Your task to perform on an android device: turn off javascript in the chrome app Image 0: 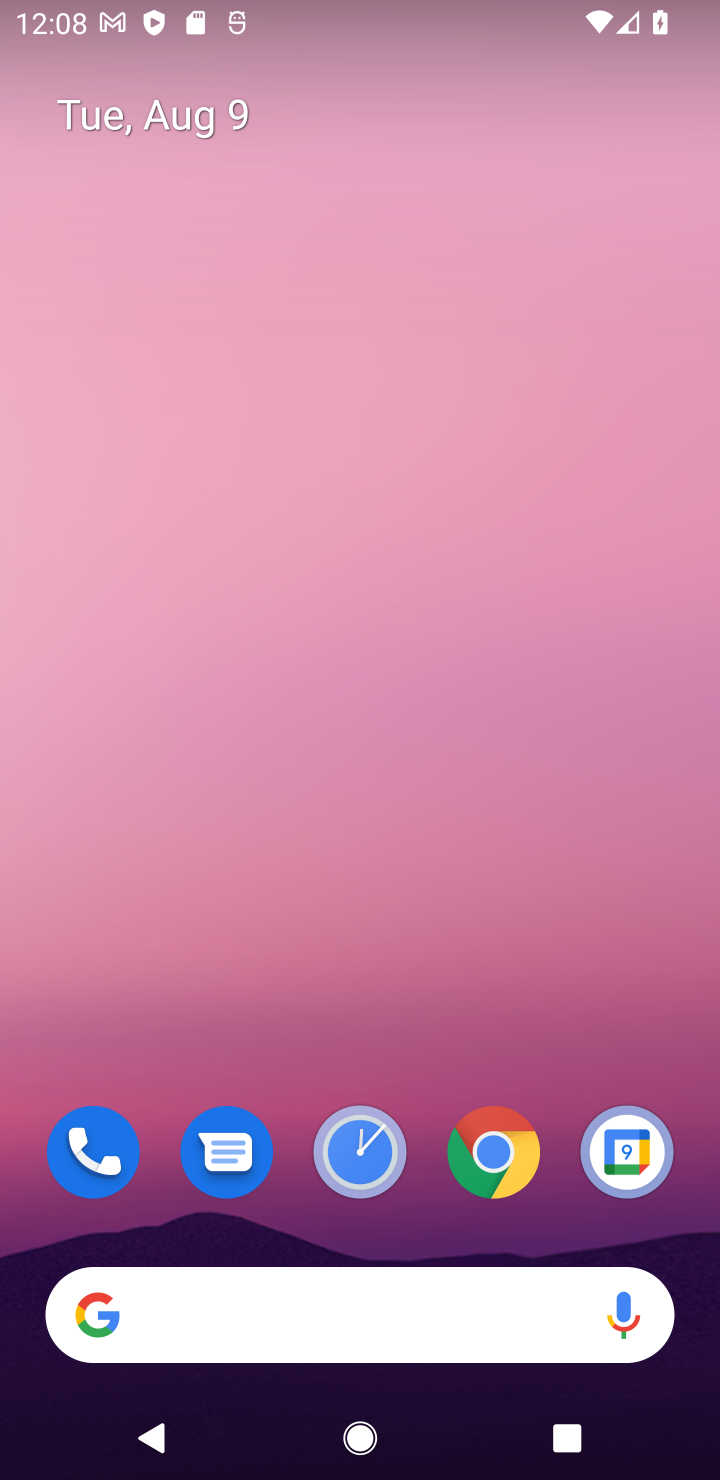
Step 0: click (494, 1142)
Your task to perform on an android device: turn off javascript in the chrome app Image 1: 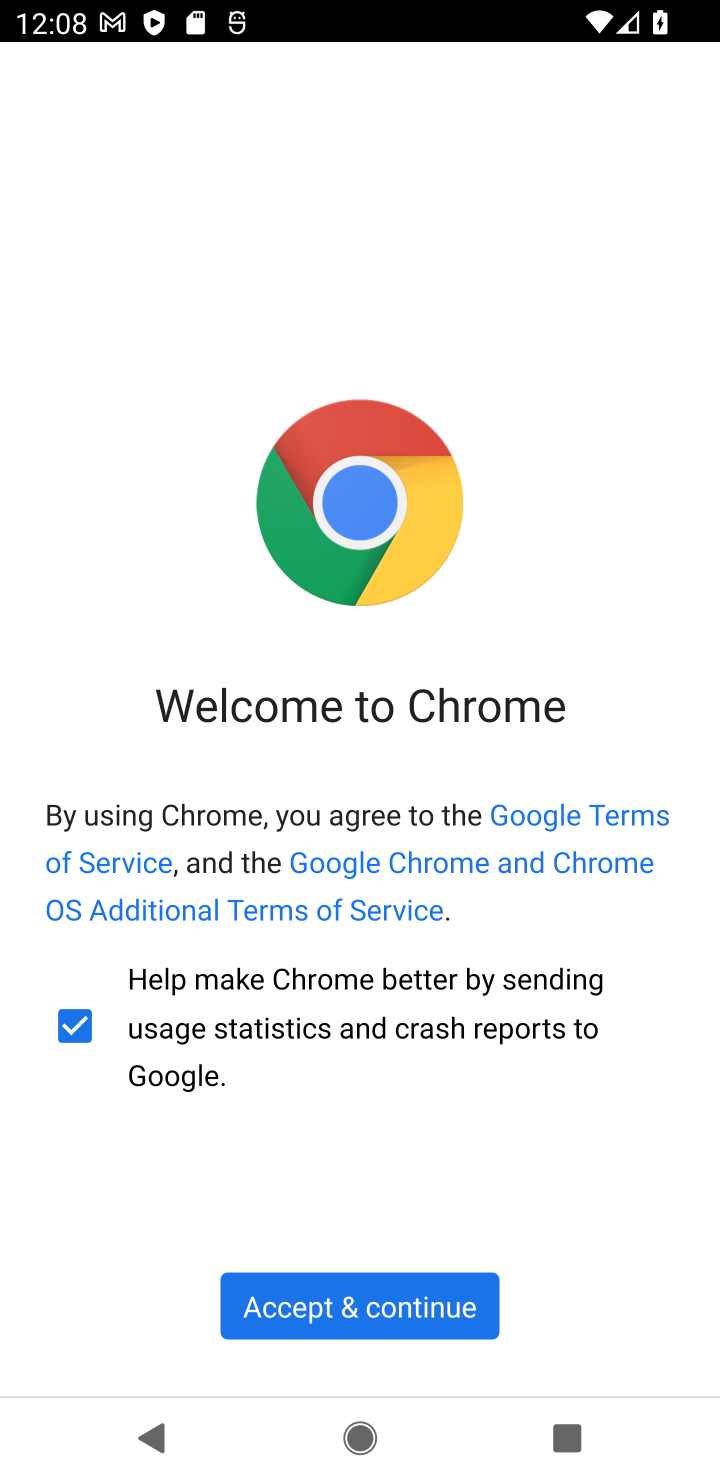
Step 1: click (414, 1295)
Your task to perform on an android device: turn off javascript in the chrome app Image 2: 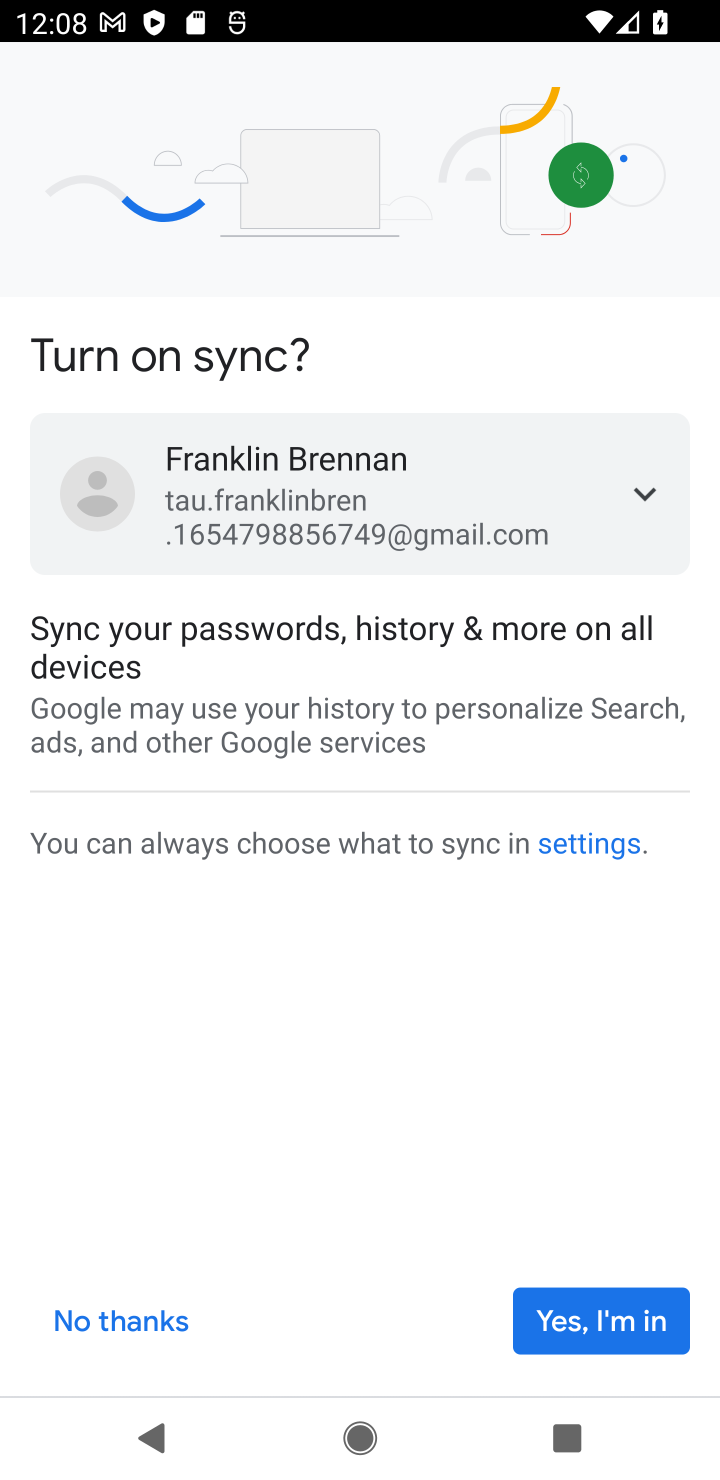
Step 2: click (584, 1328)
Your task to perform on an android device: turn off javascript in the chrome app Image 3: 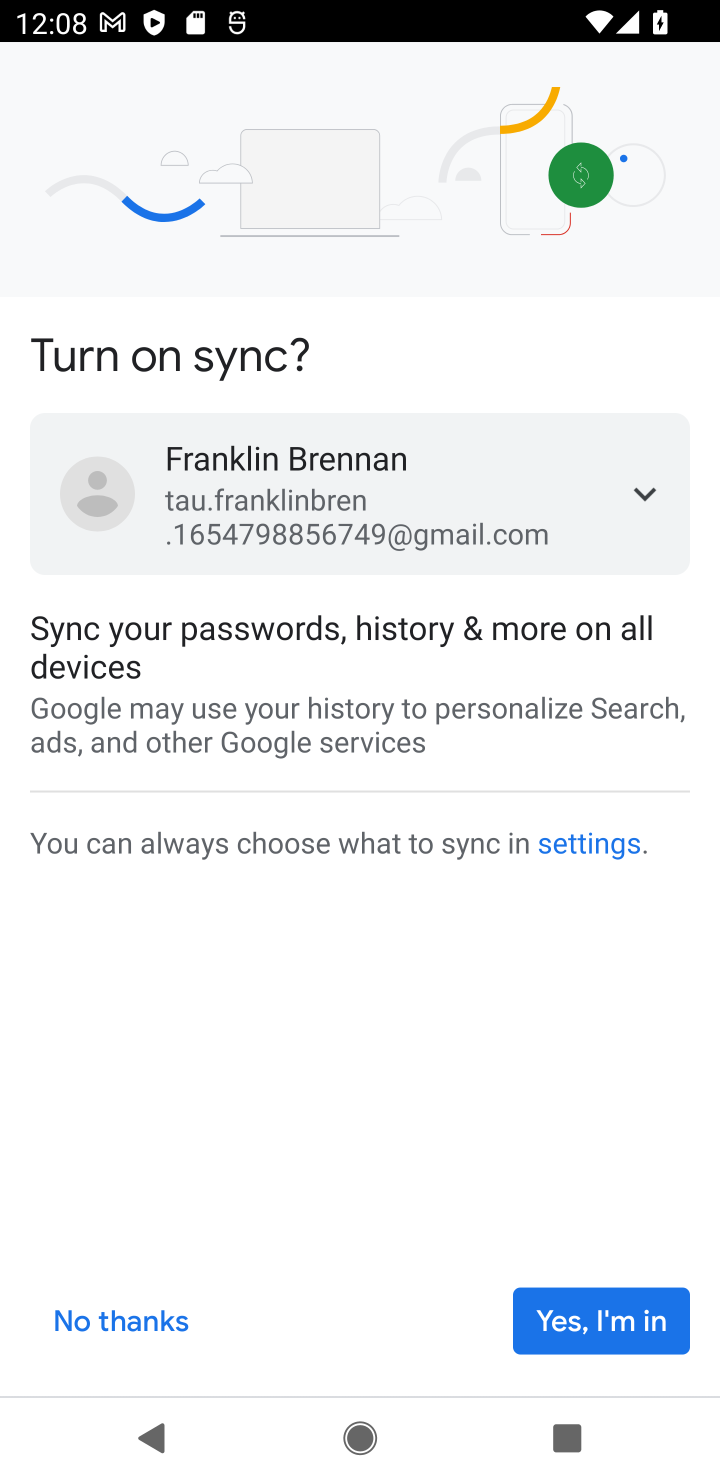
Step 3: click (597, 1305)
Your task to perform on an android device: turn off javascript in the chrome app Image 4: 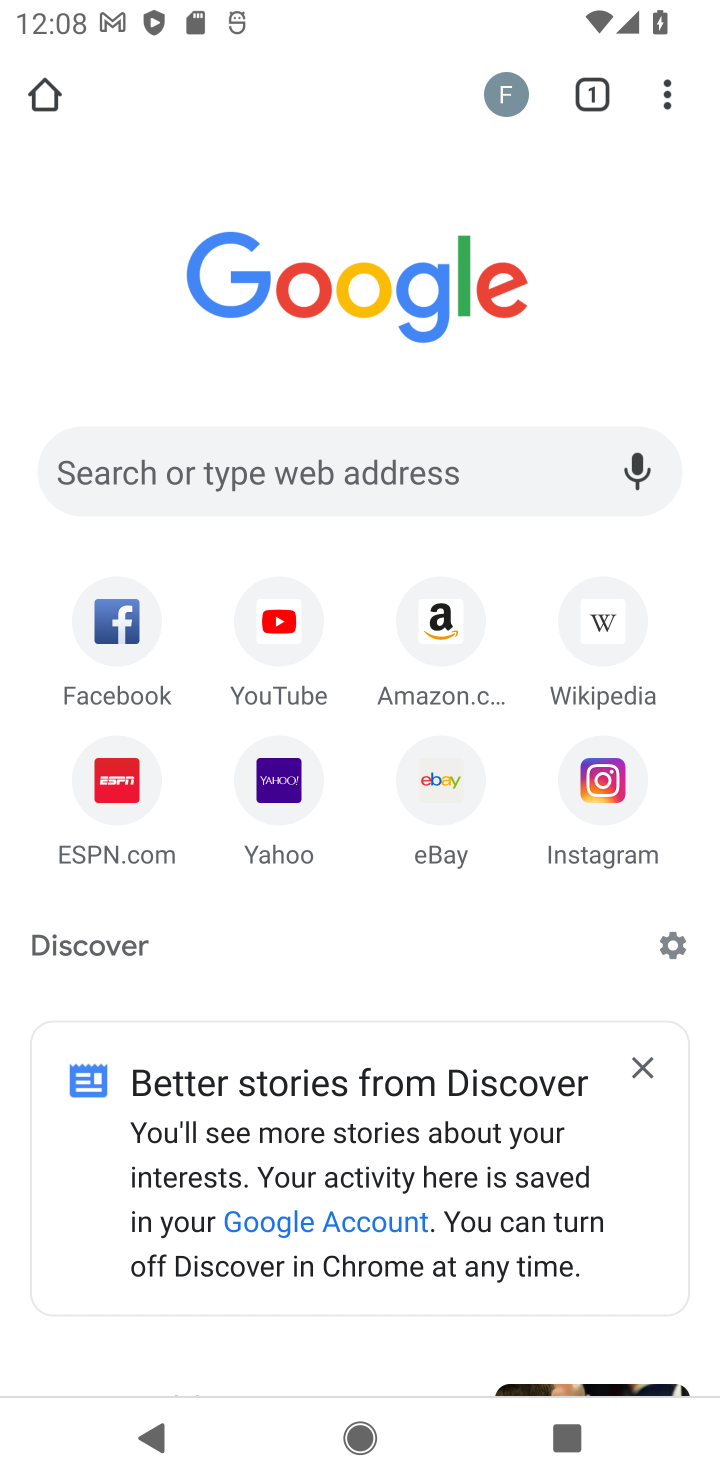
Step 4: click (658, 93)
Your task to perform on an android device: turn off javascript in the chrome app Image 5: 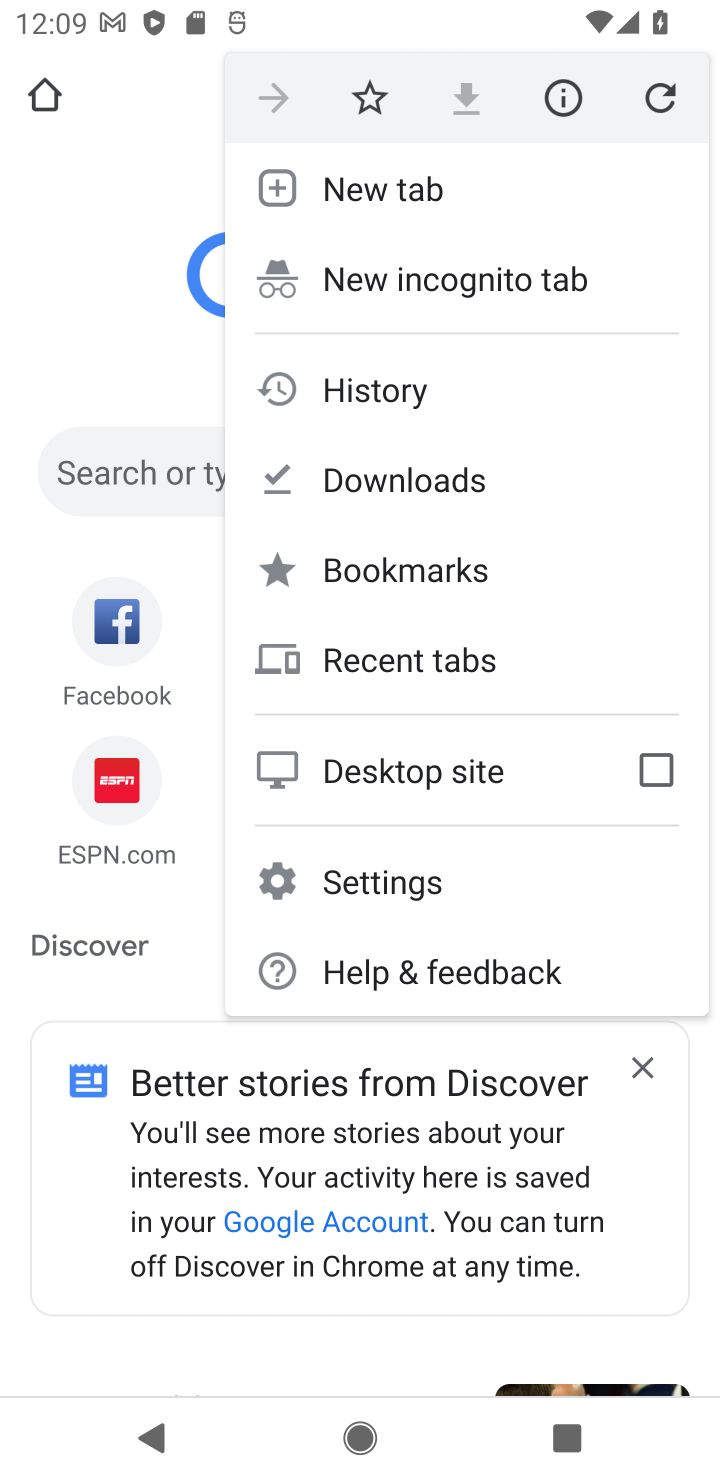
Step 5: click (375, 879)
Your task to perform on an android device: turn off javascript in the chrome app Image 6: 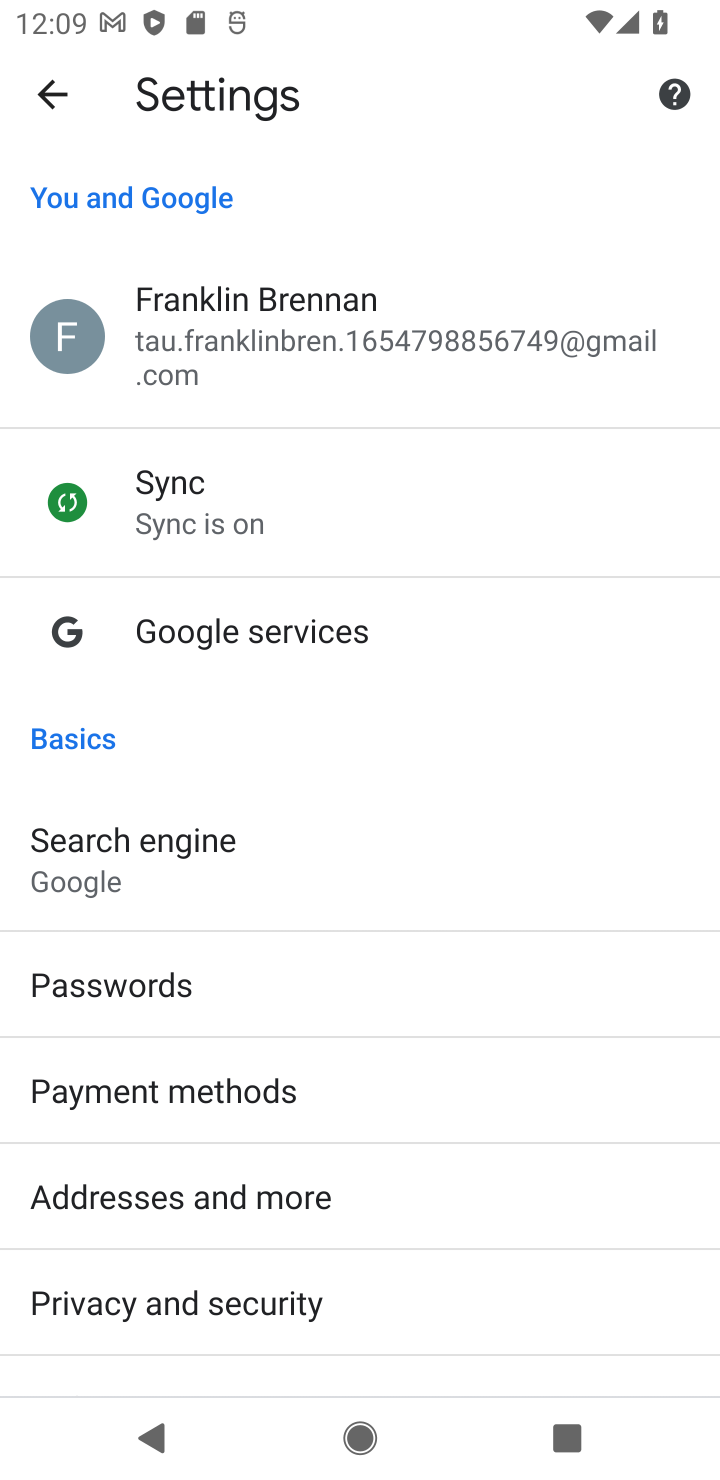
Step 6: drag from (470, 1166) to (386, 870)
Your task to perform on an android device: turn off javascript in the chrome app Image 7: 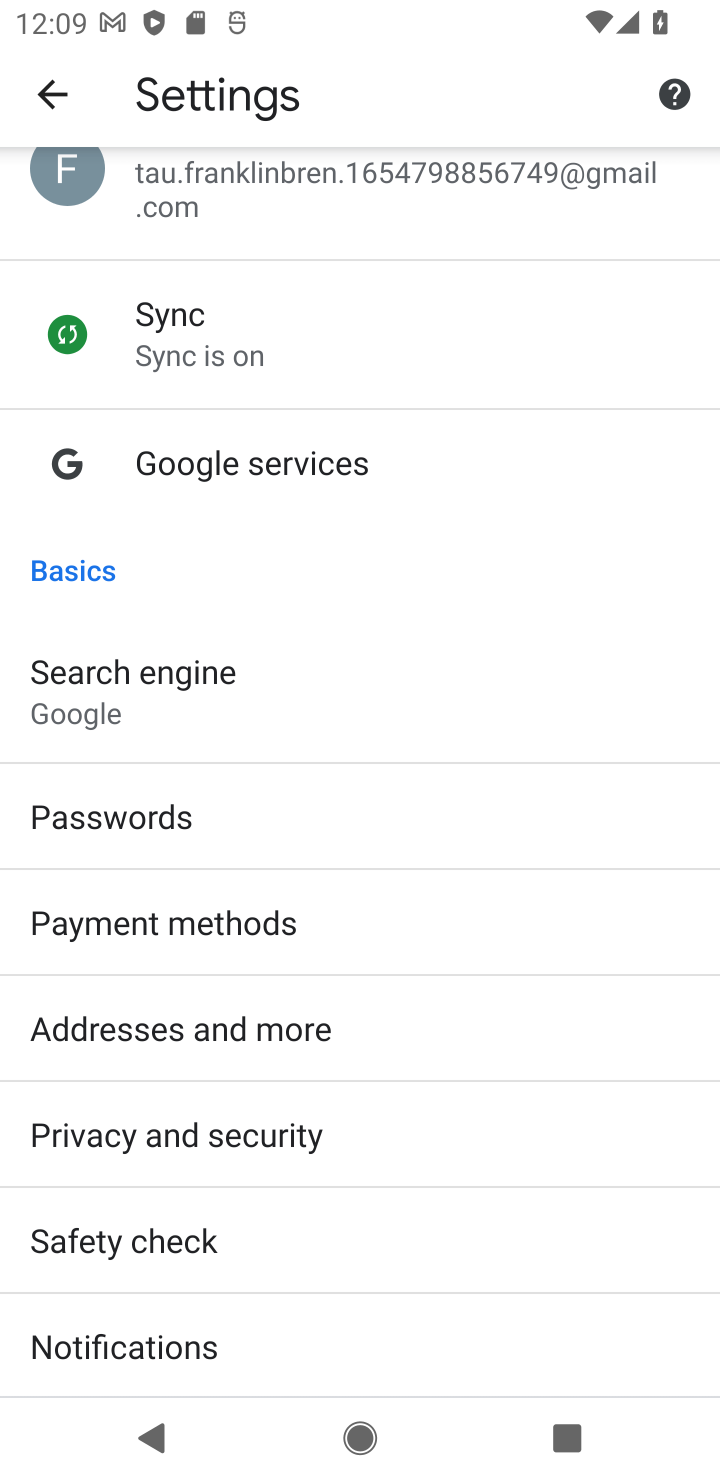
Step 7: drag from (478, 1282) to (345, 842)
Your task to perform on an android device: turn off javascript in the chrome app Image 8: 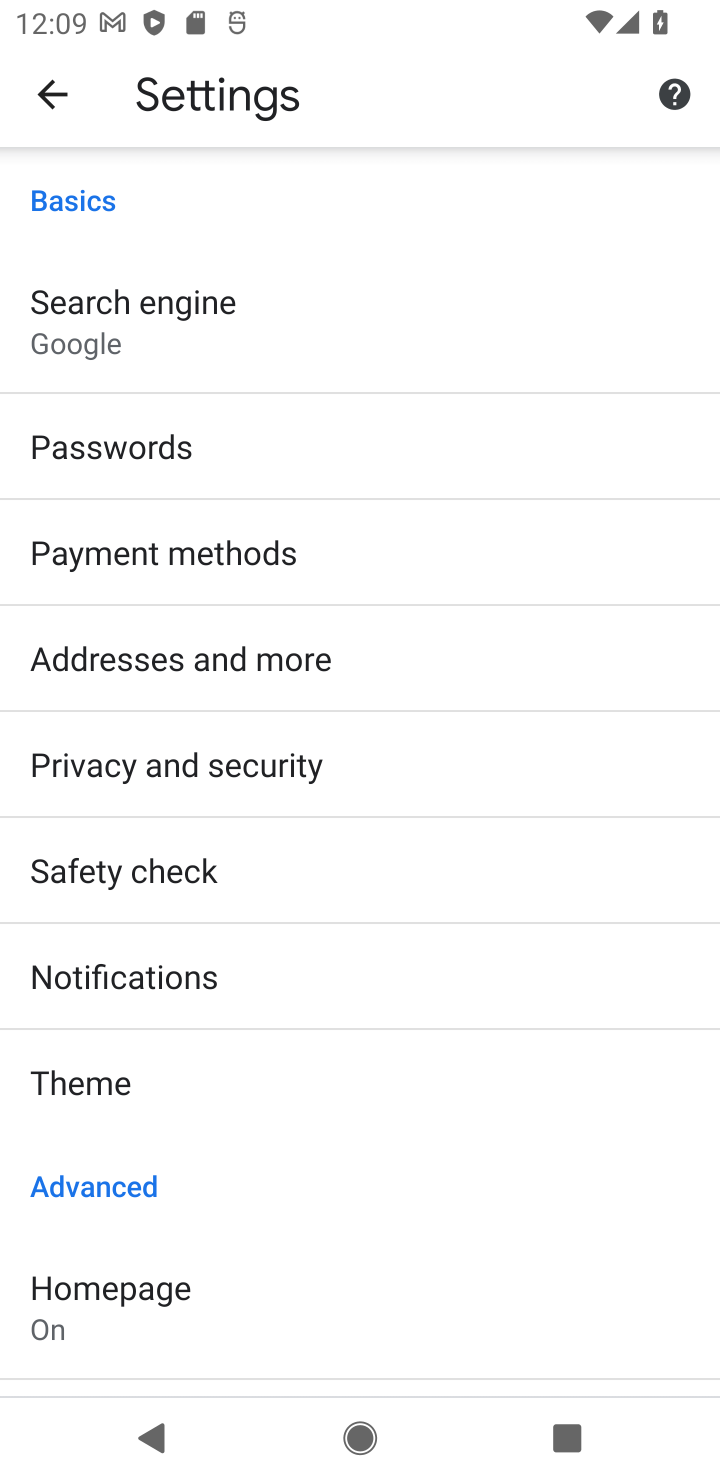
Step 8: drag from (436, 1286) to (289, 738)
Your task to perform on an android device: turn off javascript in the chrome app Image 9: 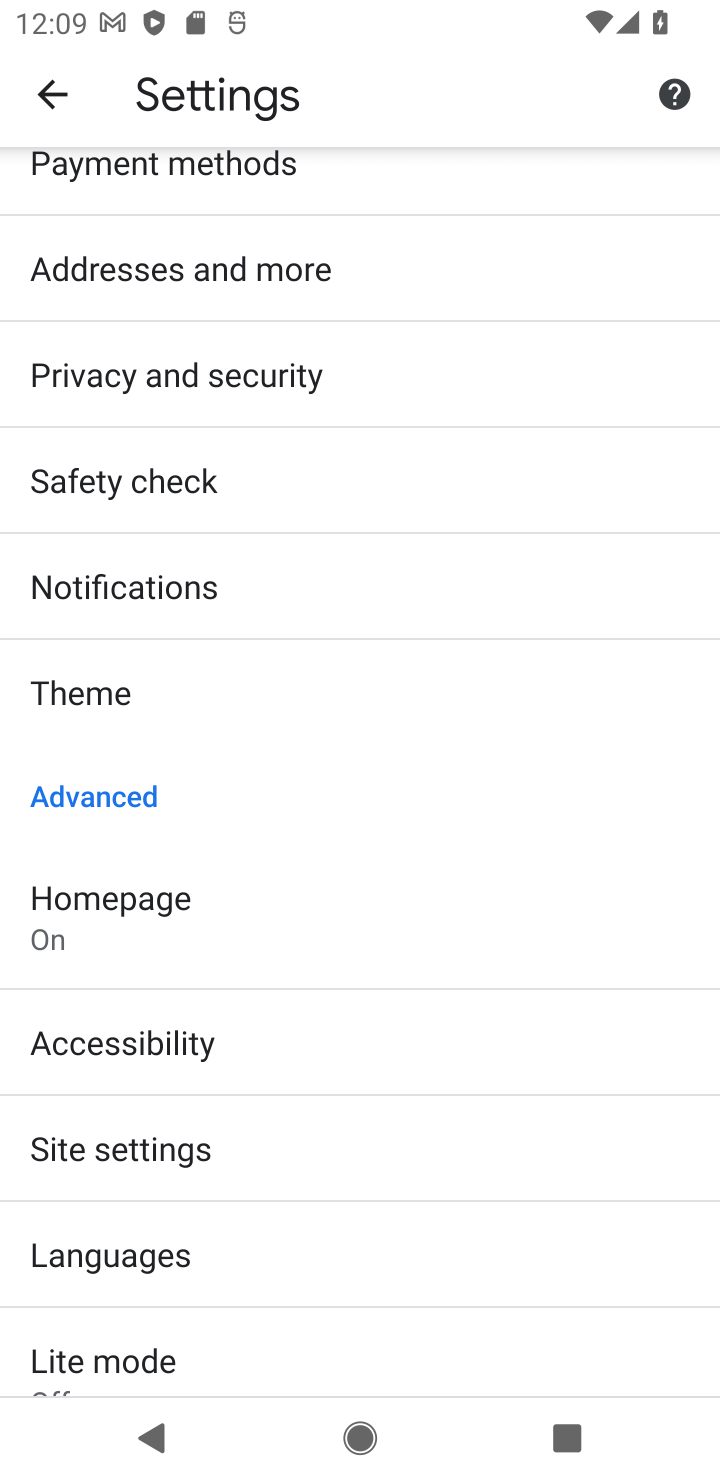
Step 9: click (244, 1130)
Your task to perform on an android device: turn off javascript in the chrome app Image 10: 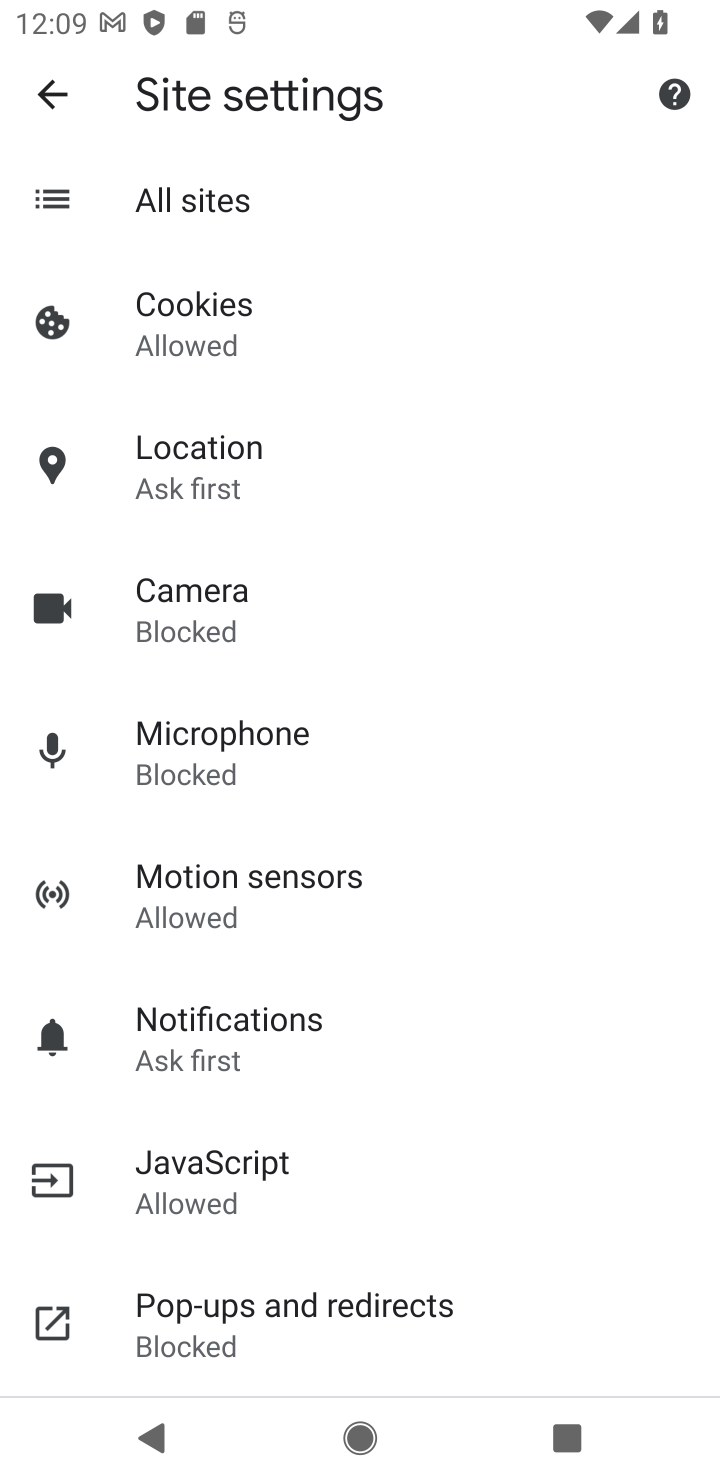
Step 10: click (334, 1173)
Your task to perform on an android device: turn off javascript in the chrome app Image 11: 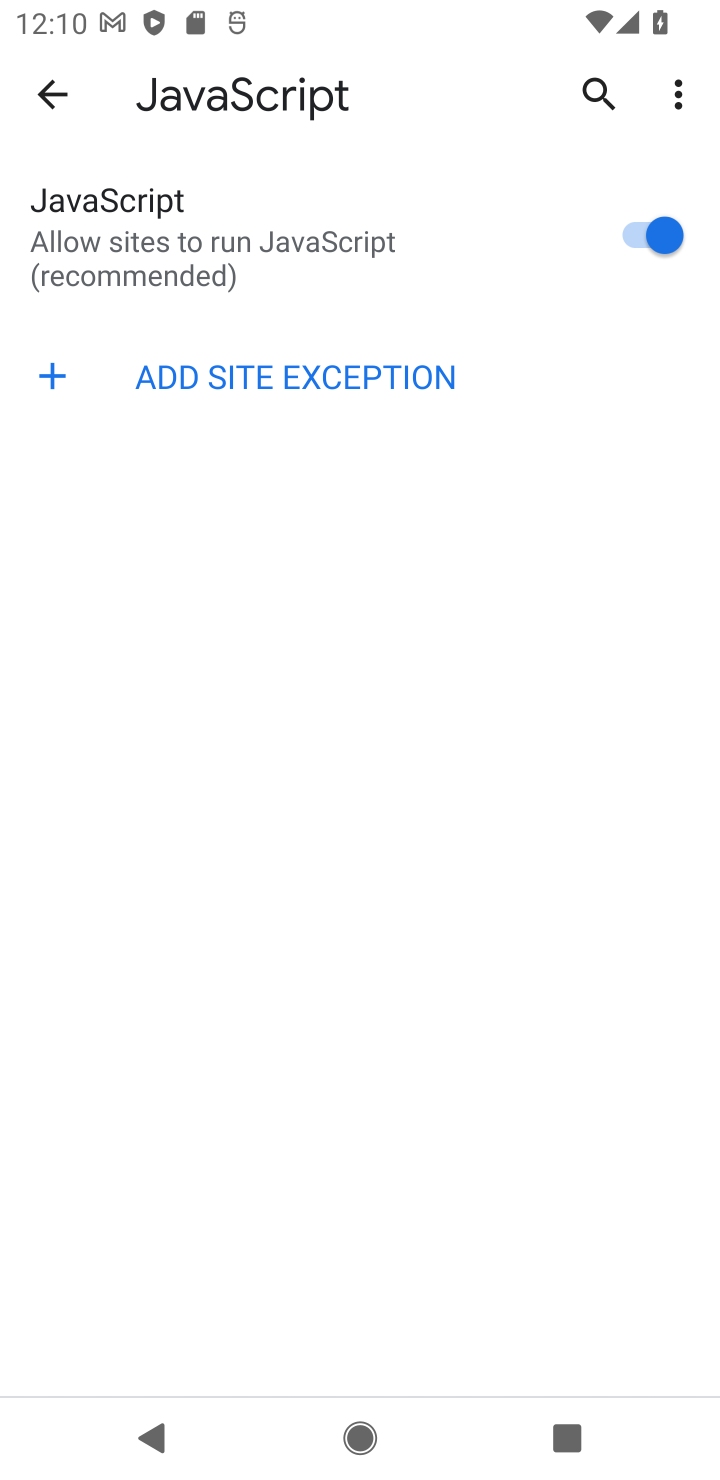
Step 11: click (638, 224)
Your task to perform on an android device: turn off javascript in the chrome app Image 12: 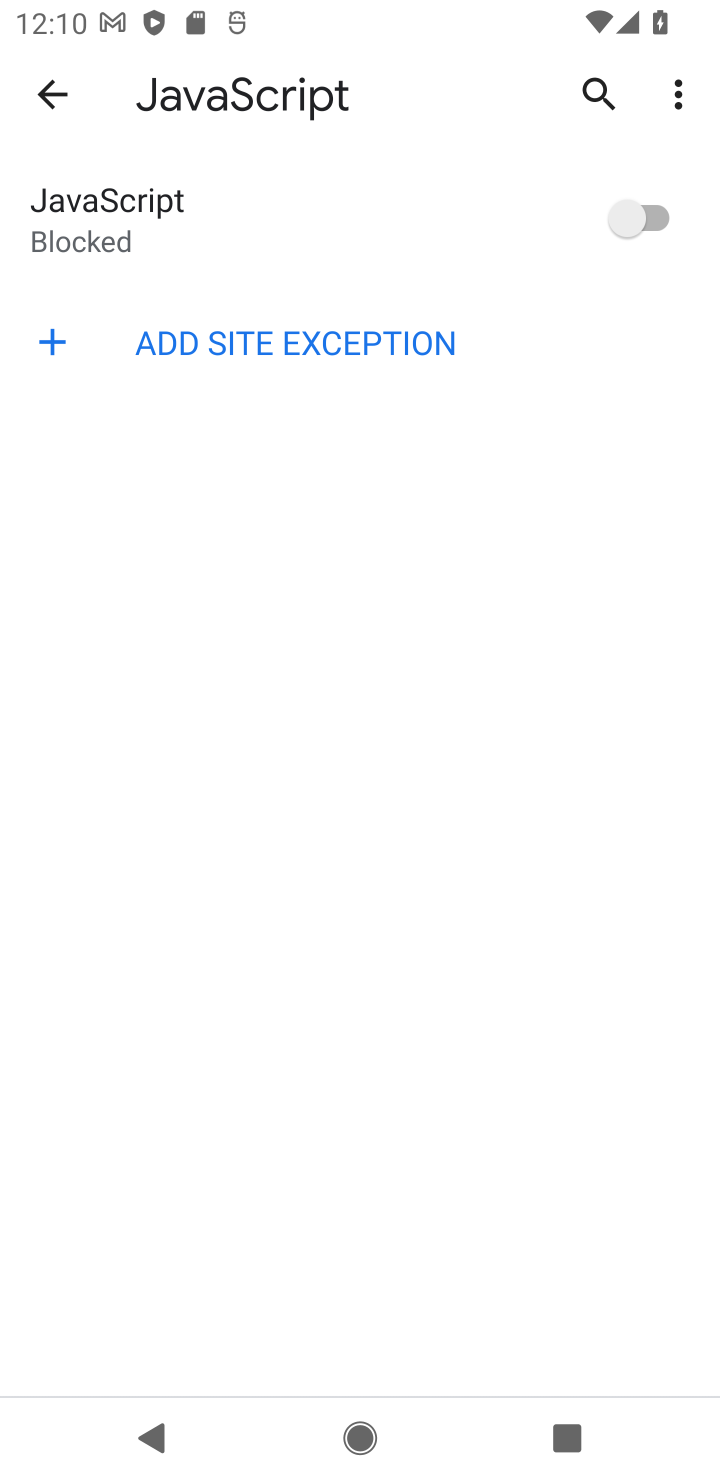
Step 12: task complete